Your task to perform on an android device: set default search engine in the chrome app Image 0: 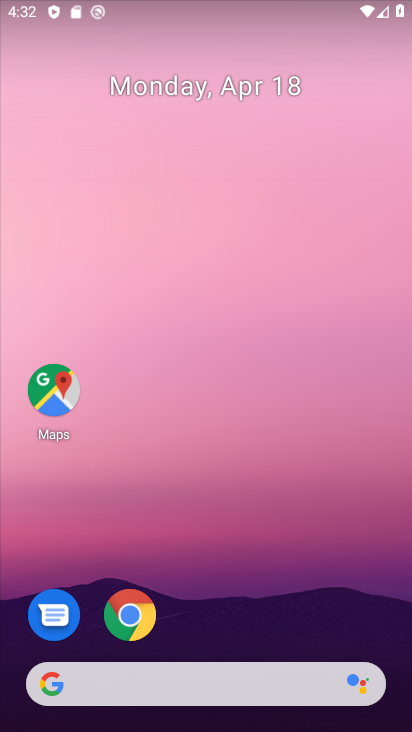
Step 0: click (121, 606)
Your task to perform on an android device: set default search engine in the chrome app Image 1: 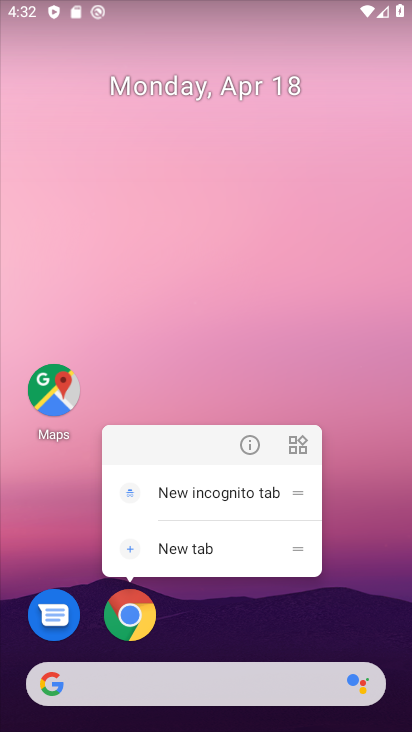
Step 1: click (132, 604)
Your task to perform on an android device: set default search engine in the chrome app Image 2: 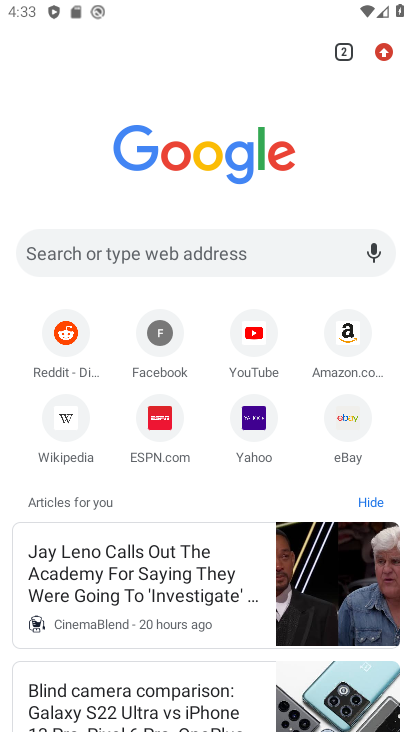
Step 2: click (391, 45)
Your task to perform on an android device: set default search engine in the chrome app Image 3: 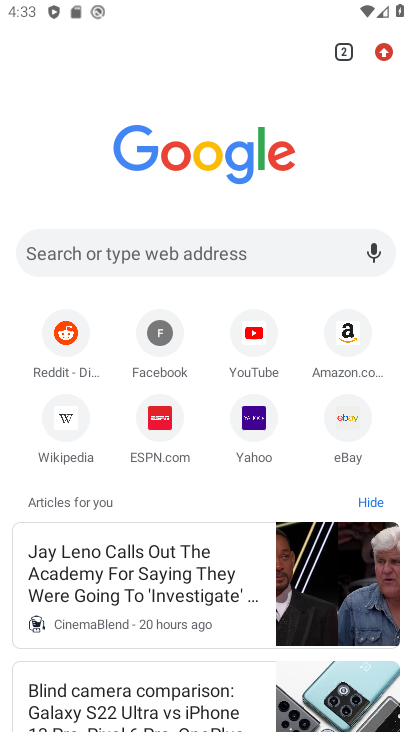
Step 3: click (382, 42)
Your task to perform on an android device: set default search engine in the chrome app Image 4: 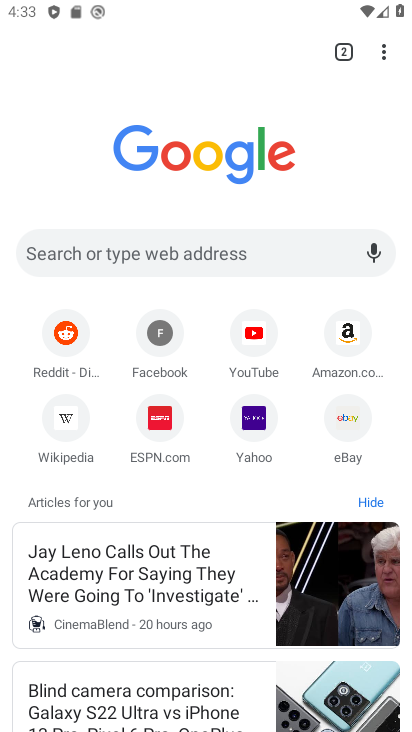
Step 4: click (380, 62)
Your task to perform on an android device: set default search engine in the chrome app Image 5: 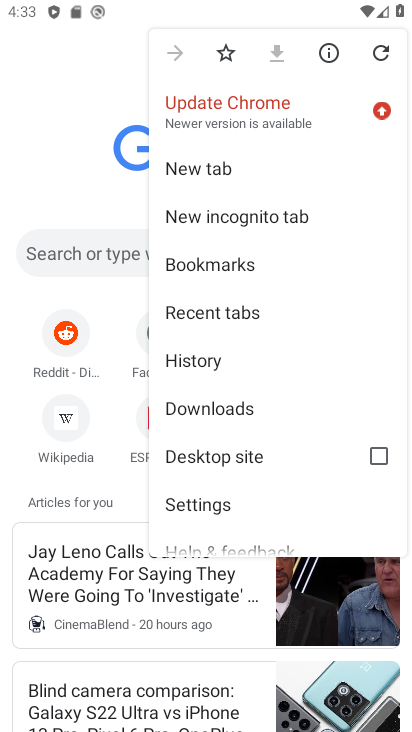
Step 5: click (242, 510)
Your task to perform on an android device: set default search engine in the chrome app Image 6: 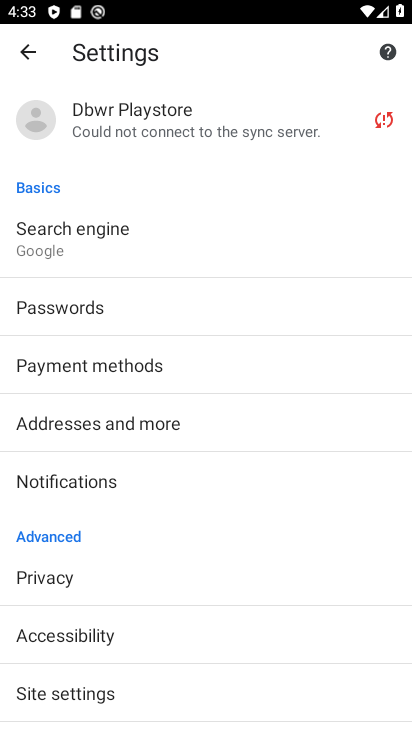
Step 6: click (132, 231)
Your task to perform on an android device: set default search engine in the chrome app Image 7: 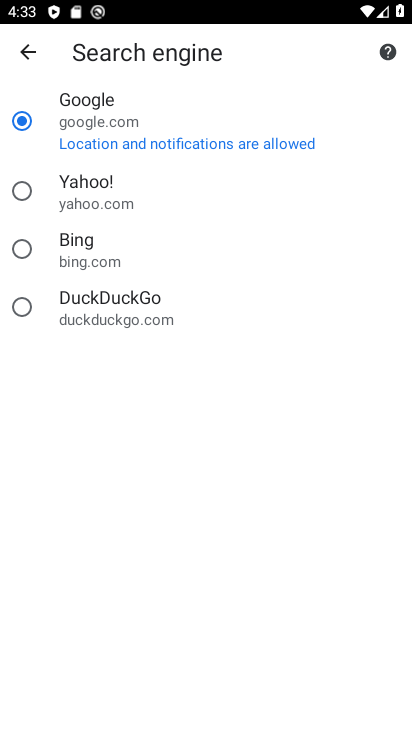
Step 7: click (112, 307)
Your task to perform on an android device: set default search engine in the chrome app Image 8: 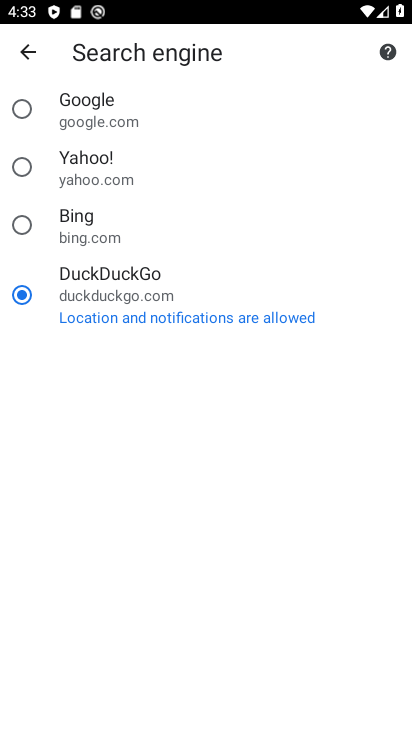
Step 8: task complete